Your task to perform on an android device: turn off sleep mode Image 0: 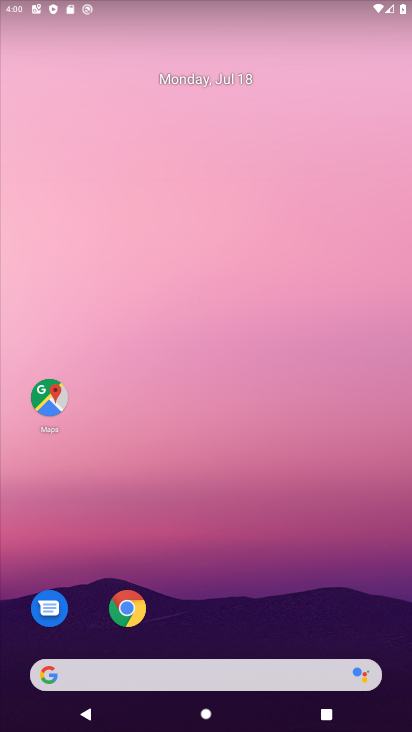
Step 0: drag from (212, 478) to (242, 112)
Your task to perform on an android device: turn off sleep mode Image 1: 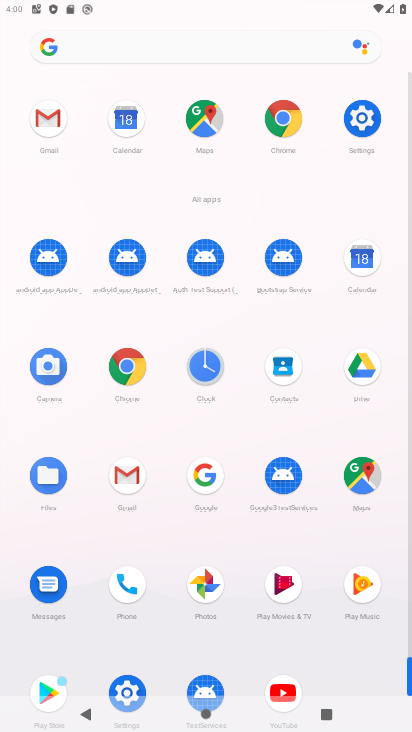
Step 1: click (373, 118)
Your task to perform on an android device: turn off sleep mode Image 2: 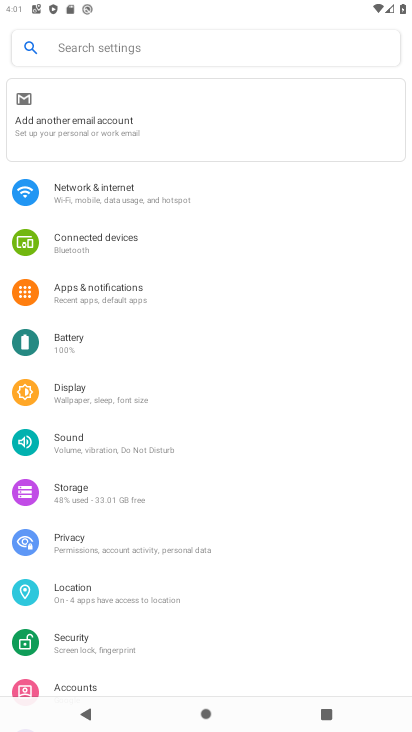
Step 2: click (165, 51)
Your task to perform on an android device: turn off sleep mode Image 3: 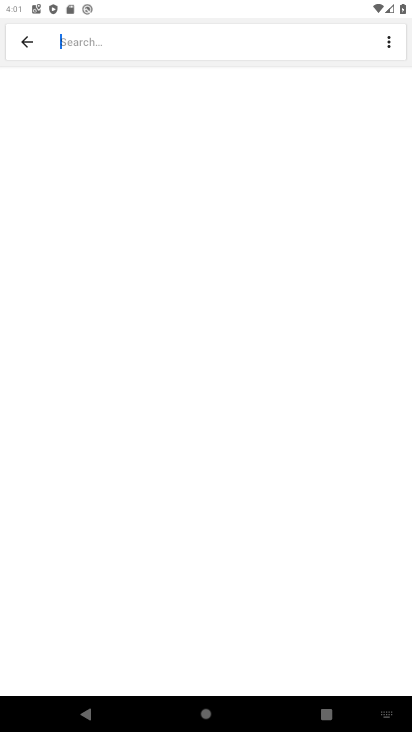
Step 3: type "sleep mode"
Your task to perform on an android device: turn off sleep mode Image 4: 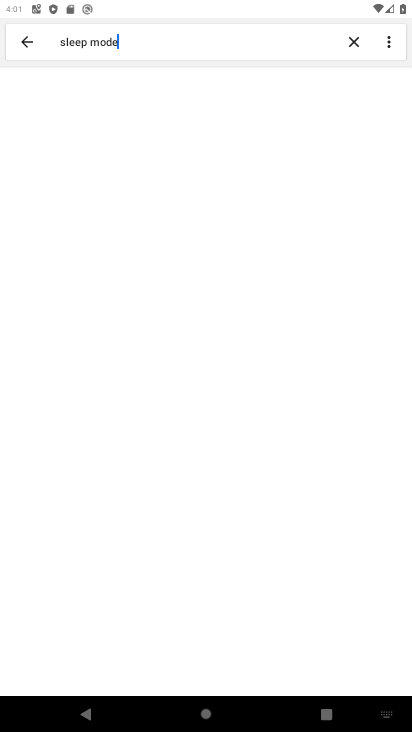
Step 4: press enter
Your task to perform on an android device: turn off sleep mode Image 5: 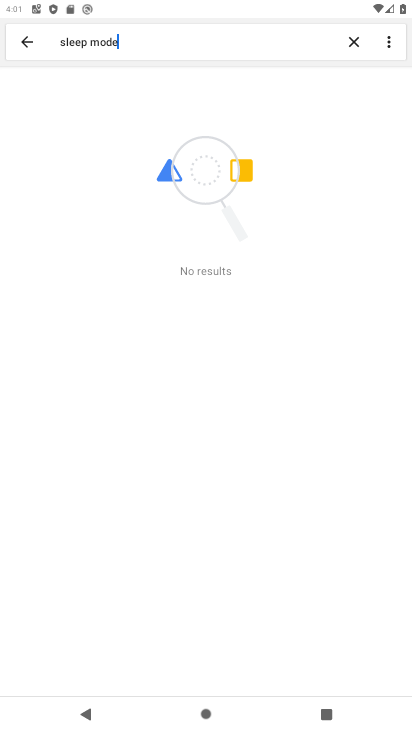
Step 5: press enter
Your task to perform on an android device: turn off sleep mode Image 6: 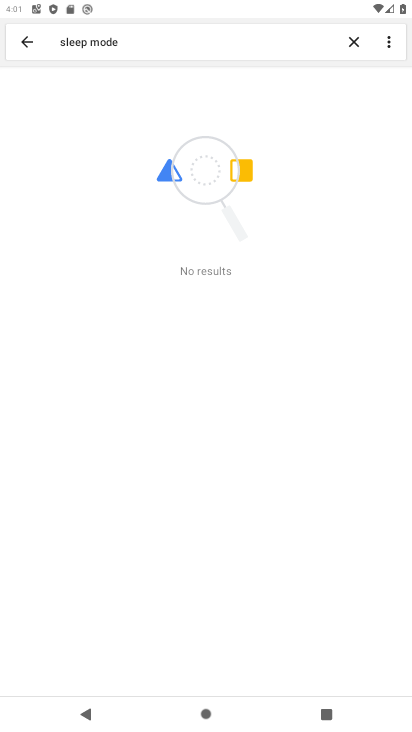
Step 6: task complete